Your task to perform on an android device: Open calendar and show me the second week of next month Image 0: 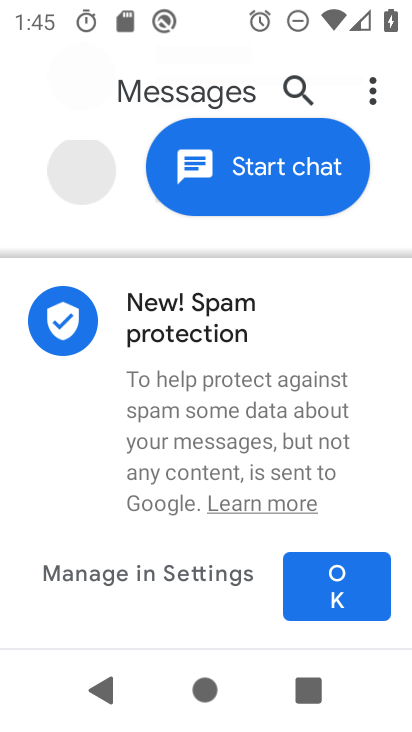
Step 0: press home button
Your task to perform on an android device: Open calendar and show me the second week of next month Image 1: 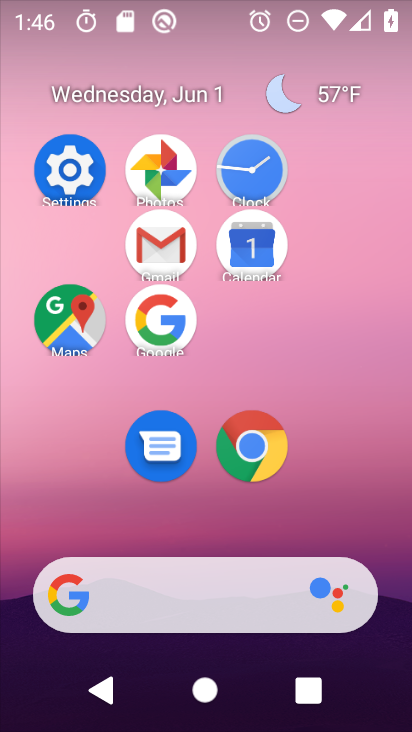
Step 1: click (277, 236)
Your task to perform on an android device: Open calendar and show me the second week of next month Image 2: 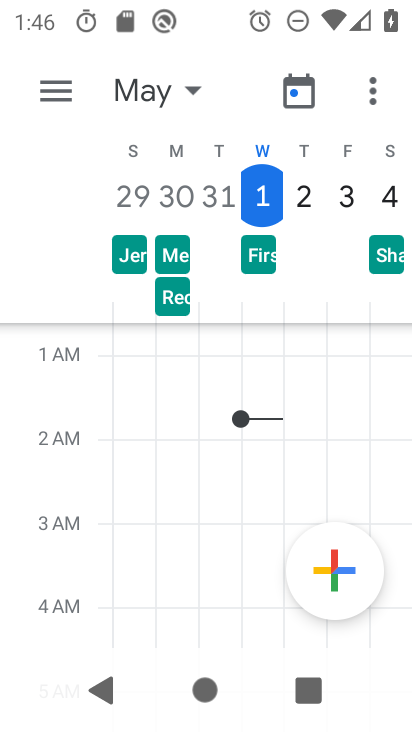
Step 2: click (75, 87)
Your task to perform on an android device: Open calendar and show me the second week of next month Image 3: 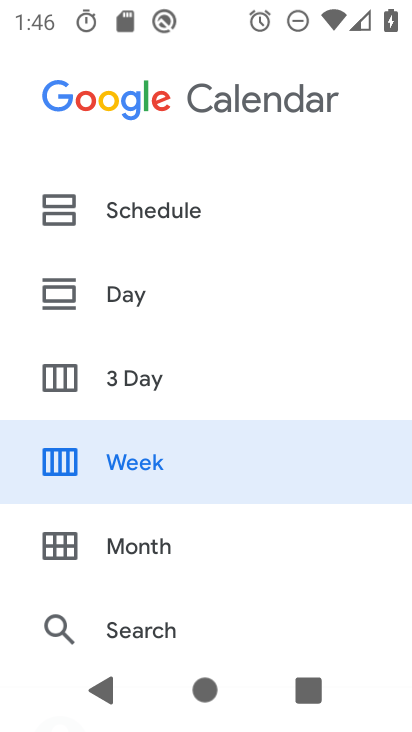
Step 3: click (151, 454)
Your task to perform on an android device: Open calendar and show me the second week of next month Image 4: 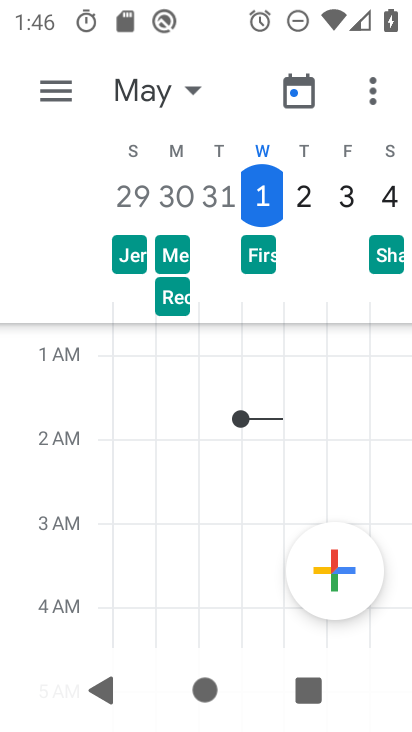
Step 4: task complete